Your task to perform on an android device: Play the last video I watched on Youtube Image 0: 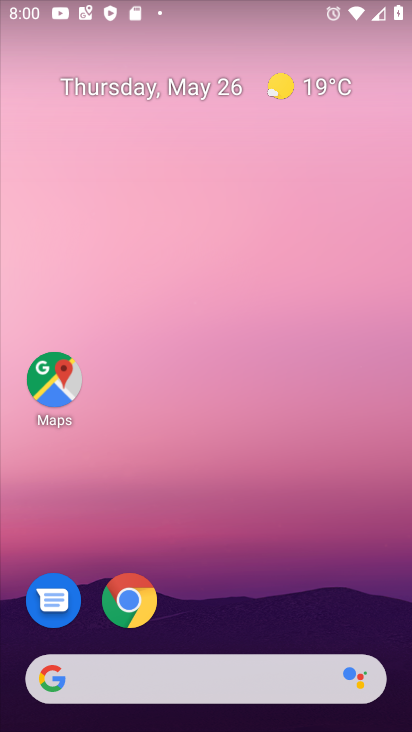
Step 0: press home button
Your task to perform on an android device: Play the last video I watched on Youtube Image 1: 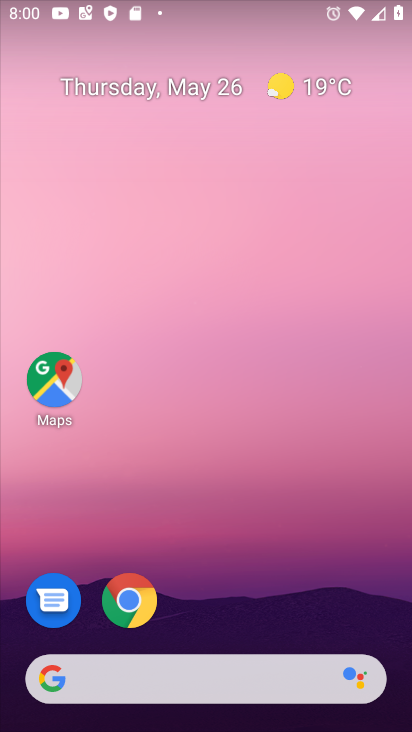
Step 1: click (403, 304)
Your task to perform on an android device: Play the last video I watched on Youtube Image 2: 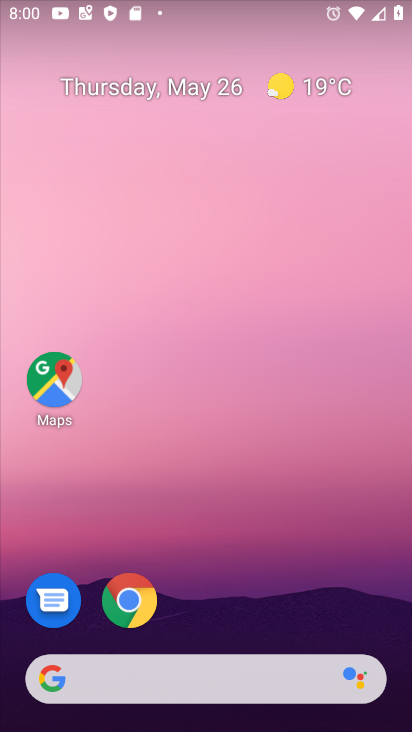
Step 2: drag from (239, 637) to (254, 245)
Your task to perform on an android device: Play the last video I watched on Youtube Image 3: 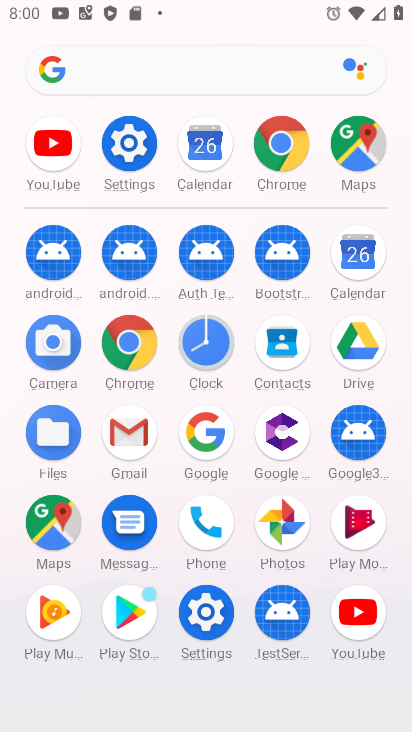
Step 3: click (365, 634)
Your task to perform on an android device: Play the last video I watched on Youtube Image 4: 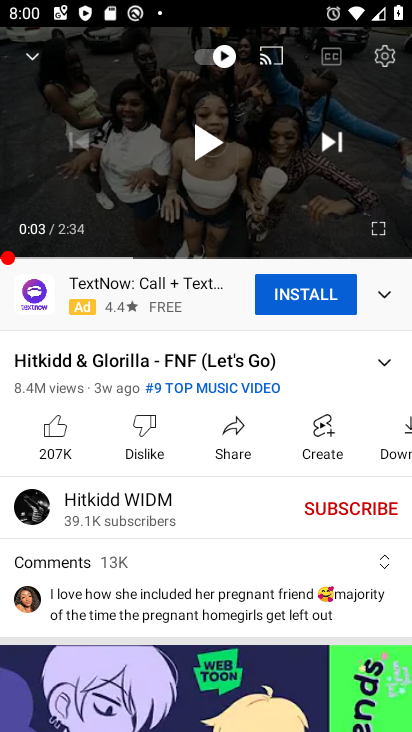
Step 4: drag from (254, 537) to (256, 261)
Your task to perform on an android device: Play the last video I watched on Youtube Image 5: 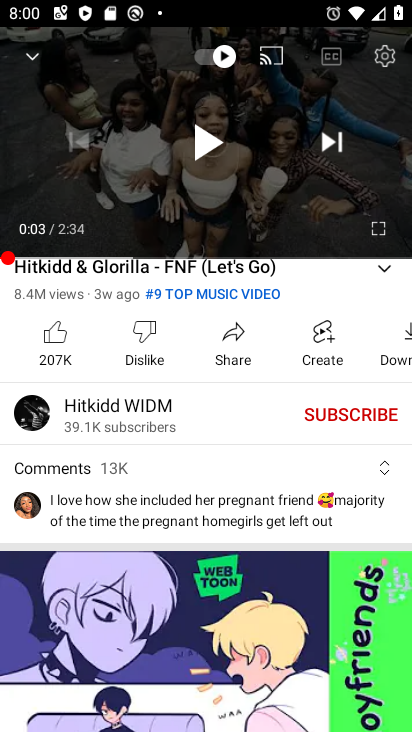
Step 5: click (32, 57)
Your task to perform on an android device: Play the last video I watched on Youtube Image 6: 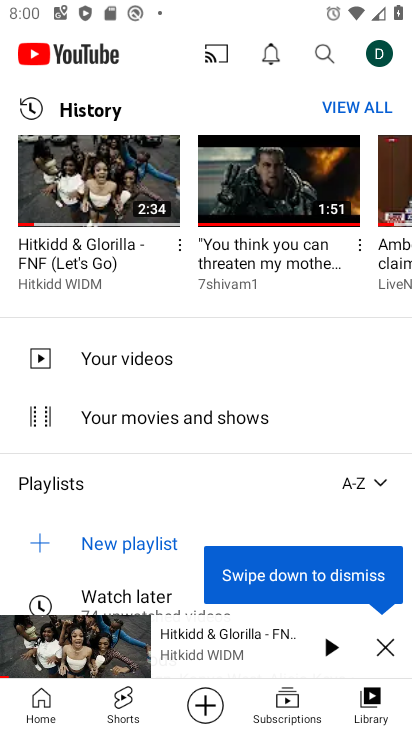
Step 6: click (388, 645)
Your task to perform on an android device: Play the last video I watched on Youtube Image 7: 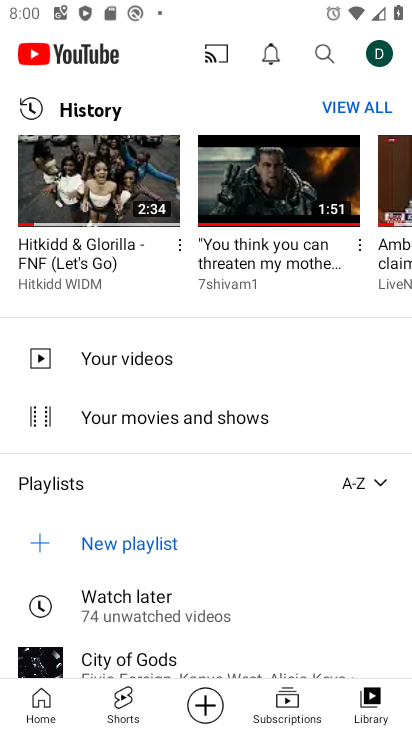
Step 7: click (103, 187)
Your task to perform on an android device: Play the last video I watched on Youtube Image 8: 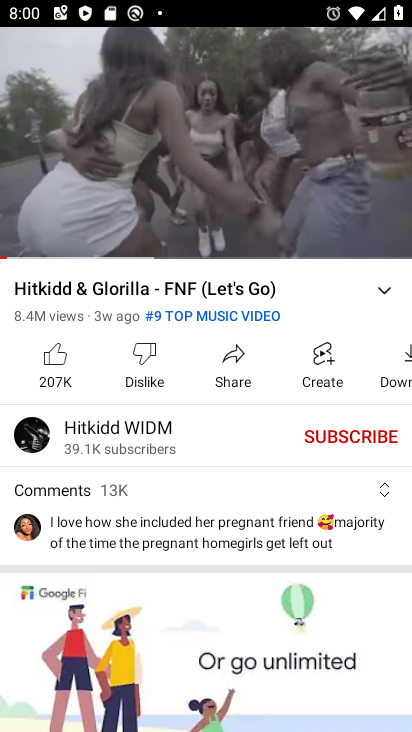
Step 8: task complete